Your task to perform on an android device: clear all cookies in the chrome app Image 0: 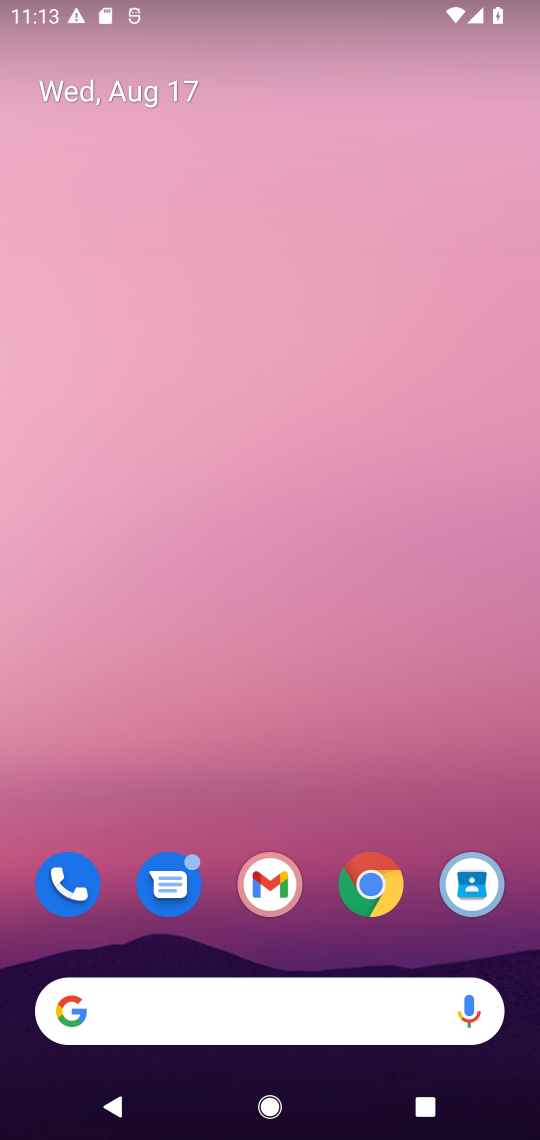
Step 0: press home button
Your task to perform on an android device: clear all cookies in the chrome app Image 1: 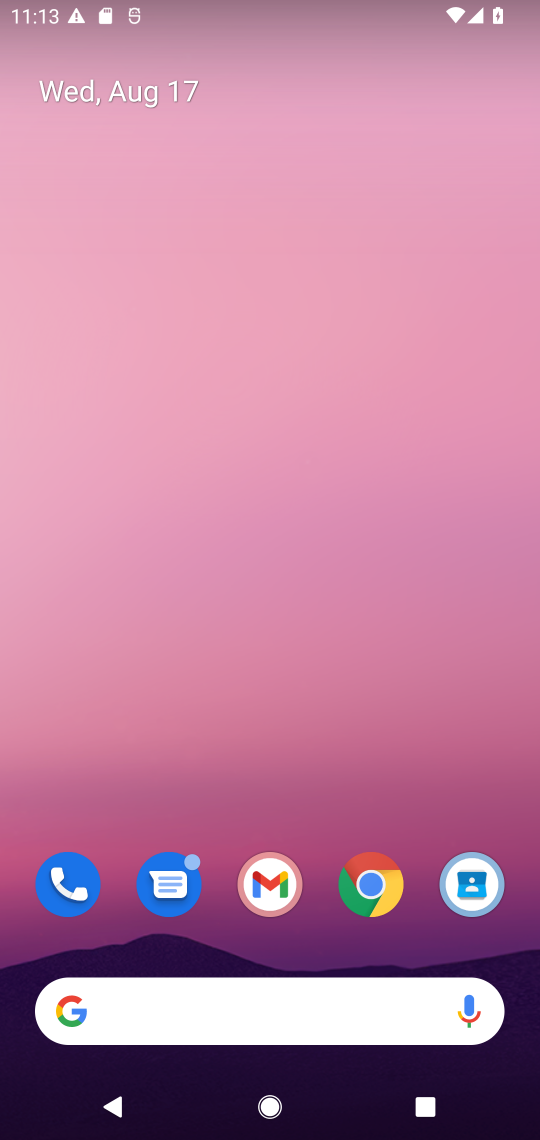
Step 1: click (372, 907)
Your task to perform on an android device: clear all cookies in the chrome app Image 2: 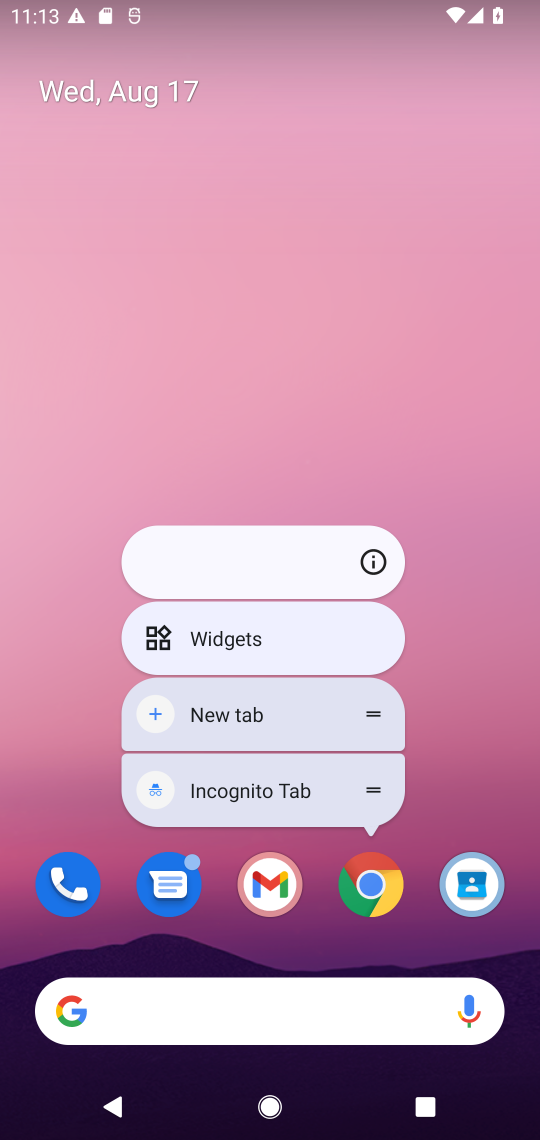
Step 2: click (373, 904)
Your task to perform on an android device: clear all cookies in the chrome app Image 3: 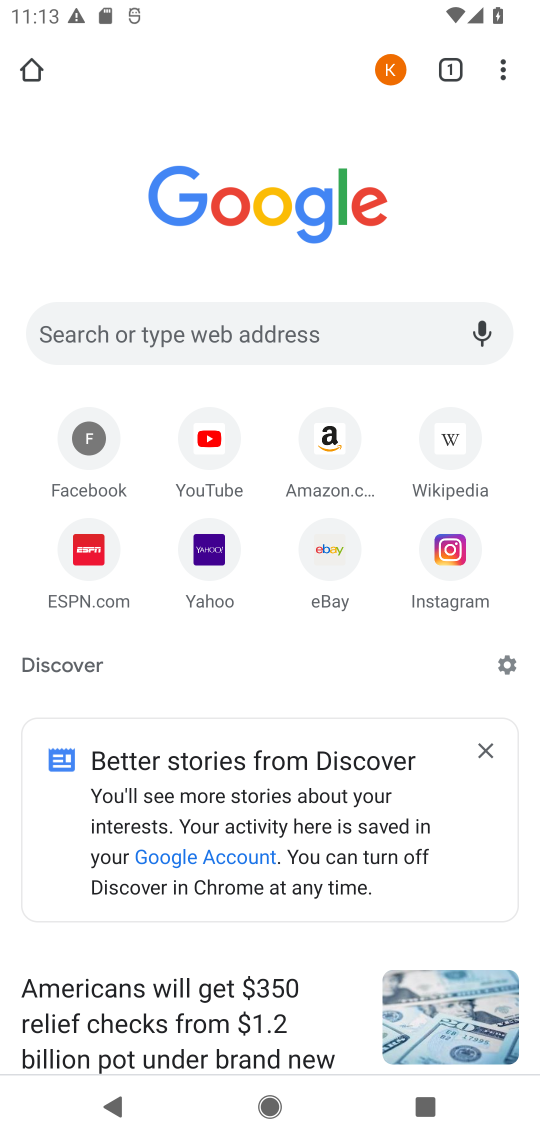
Step 3: drag from (500, 73) to (311, 618)
Your task to perform on an android device: clear all cookies in the chrome app Image 4: 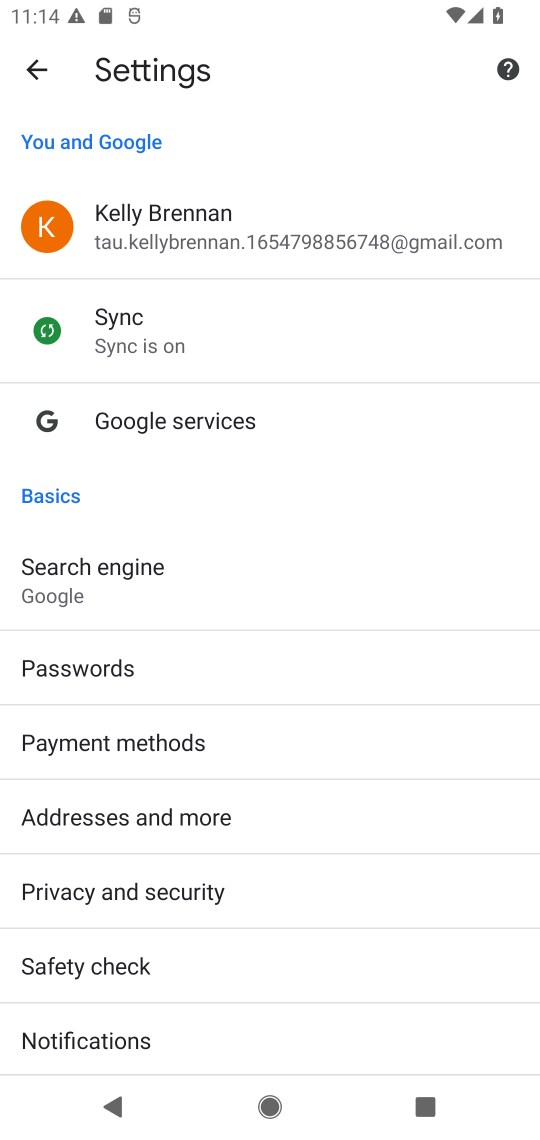
Step 4: drag from (381, 1050) to (390, 683)
Your task to perform on an android device: clear all cookies in the chrome app Image 5: 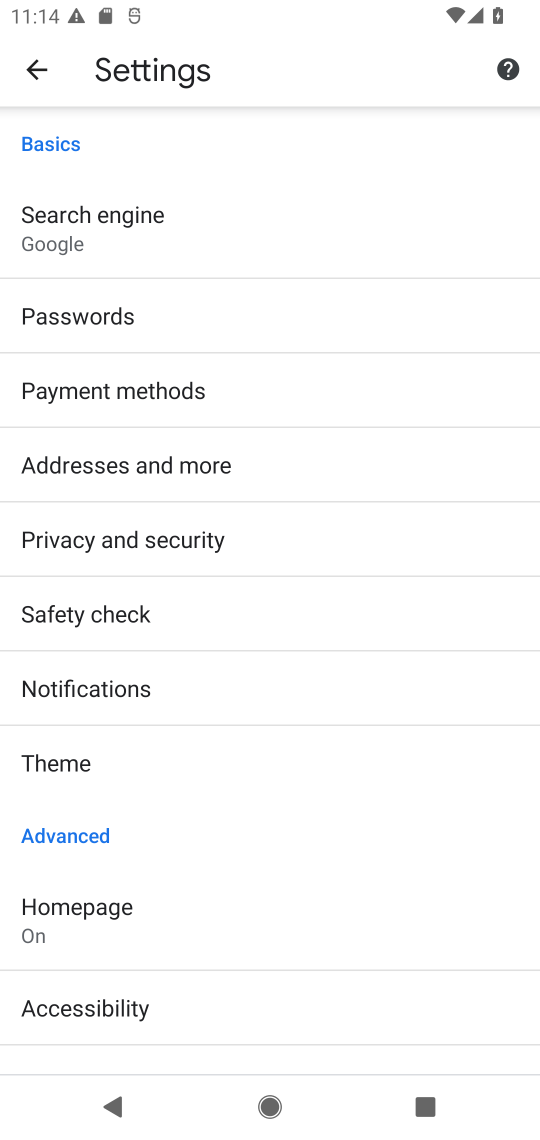
Step 5: drag from (401, 430) to (412, 1136)
Your task to perform on an android device: clear all cookies in the chrome app Image 6: 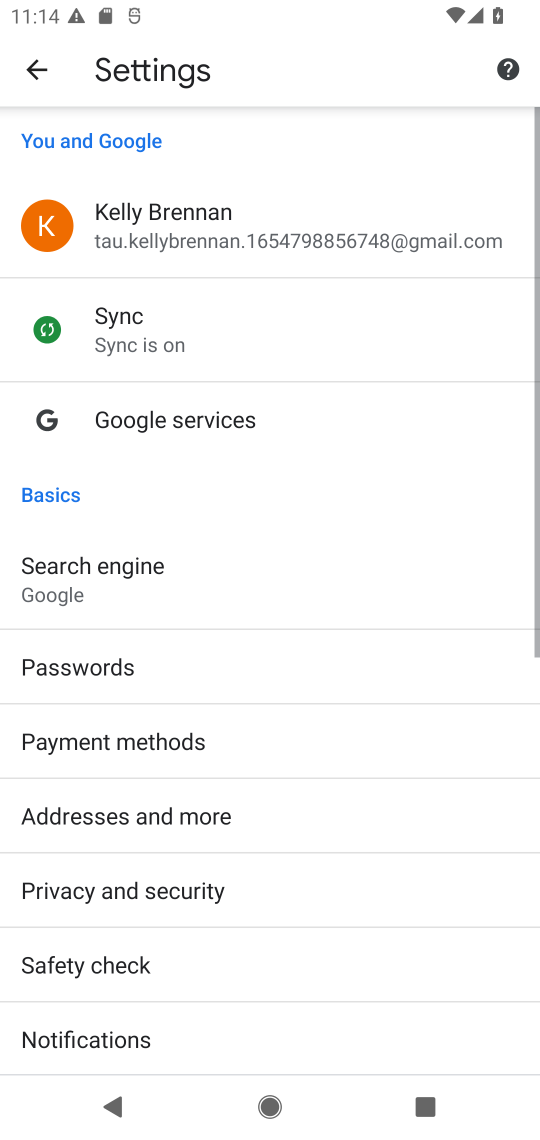
Step 6: drag from (376, 1070) to (67, 37)
Your task to perform on an android device: clear all cookies in the chrome app Image 7: 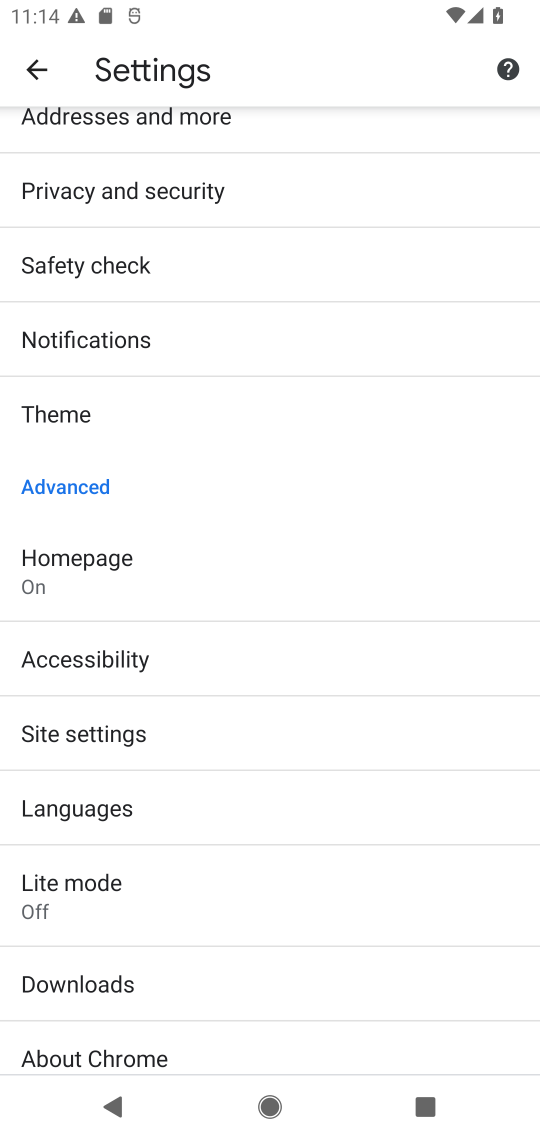
Step 7: click (149, 197)
Your task to perform on an android device: clear all cookies in the chrome app Image 8: 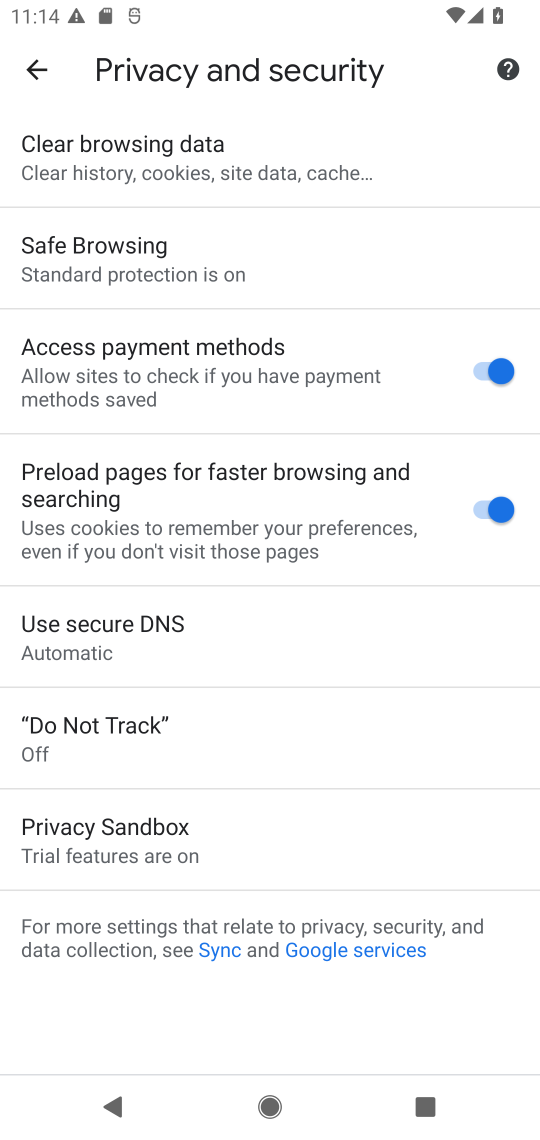
Step 8: click (80, 165)
Your task to perform on an android device: clear all cookies in the chrome app Image 9: 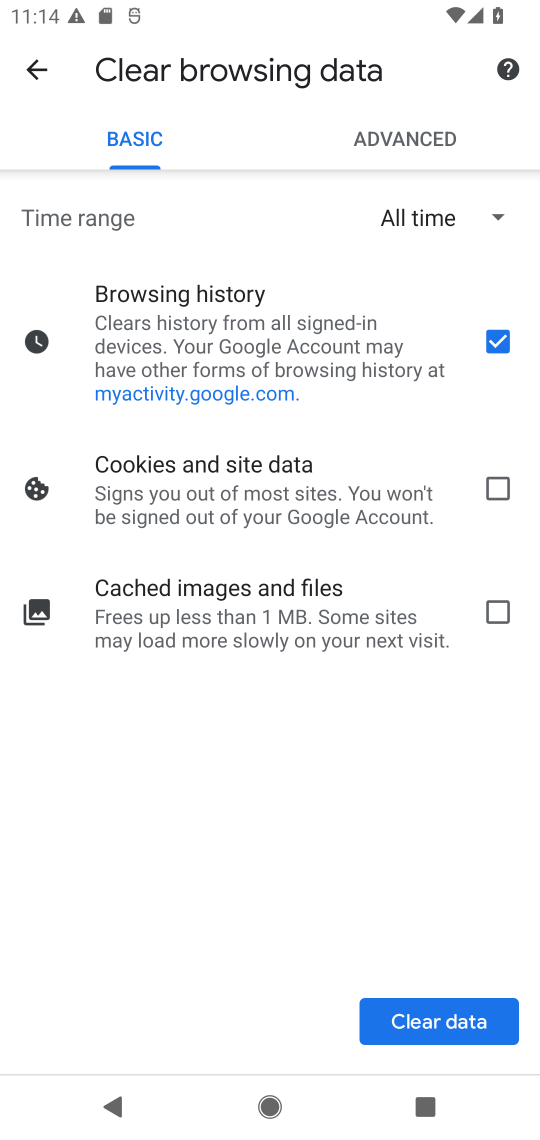
Step 9: click (494, 483)
Your task to perform on an android device: clear all cookies in the chrome app Image 10: 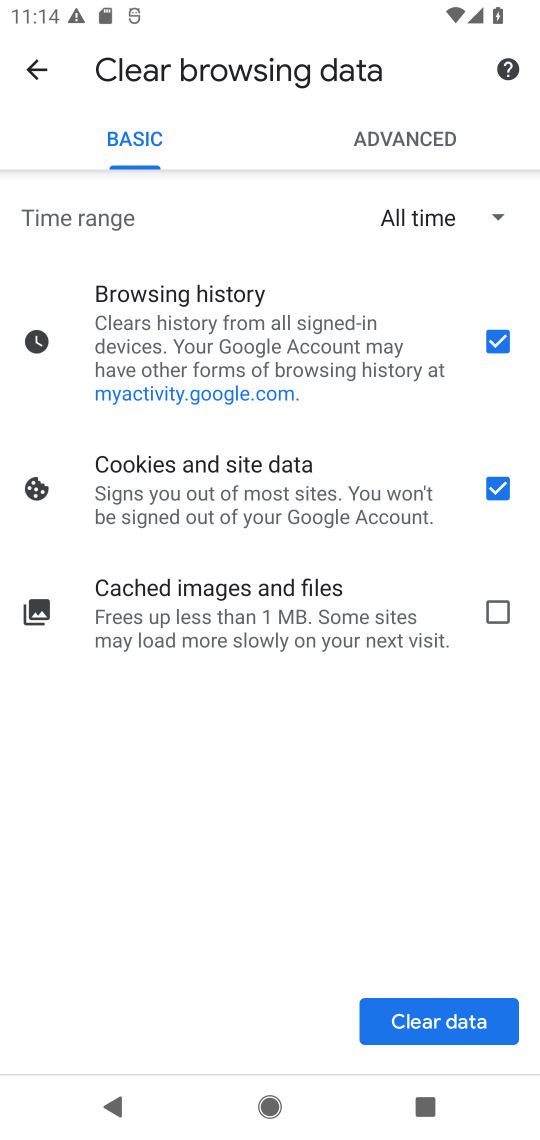
Step 10: click (503, 341)
Your task to perform on an android device: clear all cookies in the chrome app Image 11: 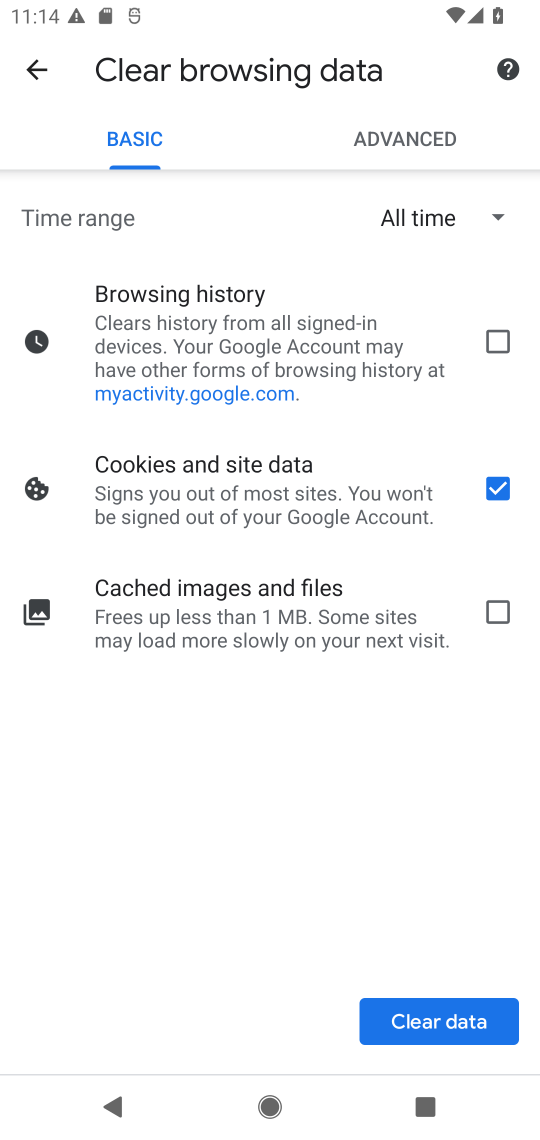
Step 11: click (420, 1019)
Your task to perform on an android device: clear all cookies in the chrome app Image 12: 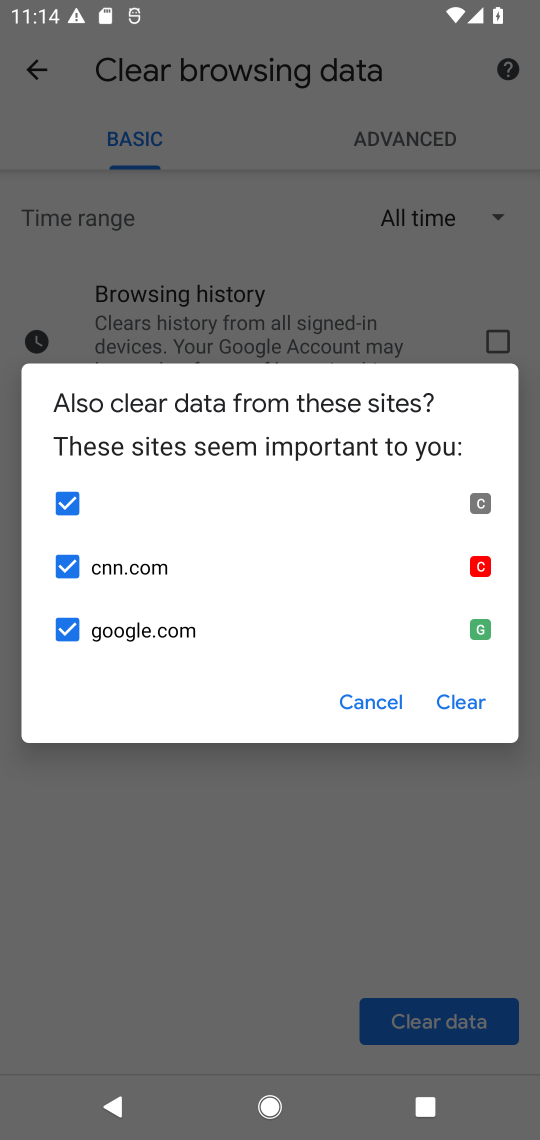
Step 12: click (455, 701)
Your task to perform on an android device: clear all cookies in the chrome app Image 13: 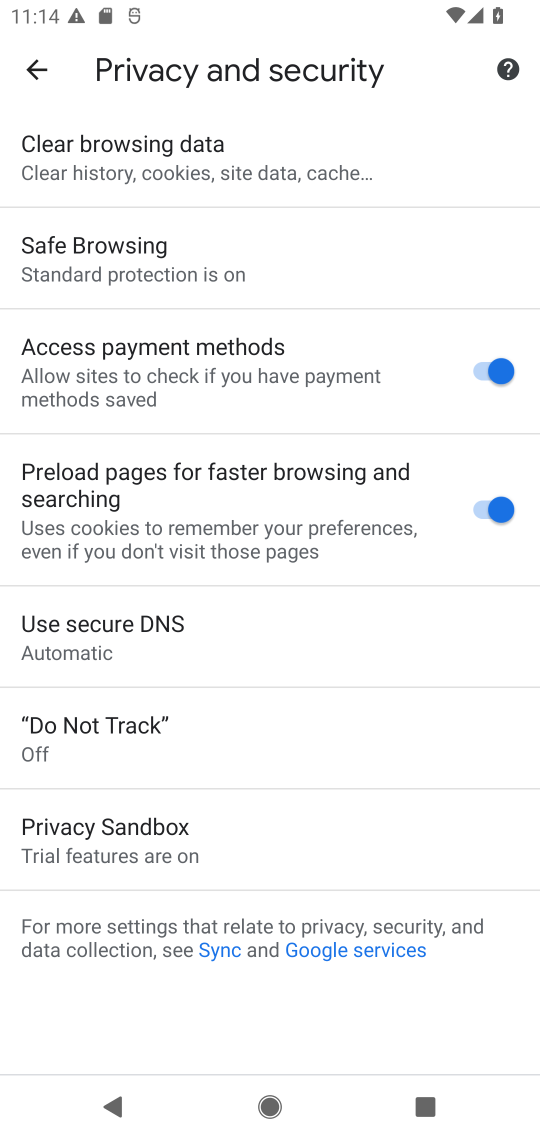
Step 13: task complete